Your task to perform on an android device: Open wifi settings Image 0: 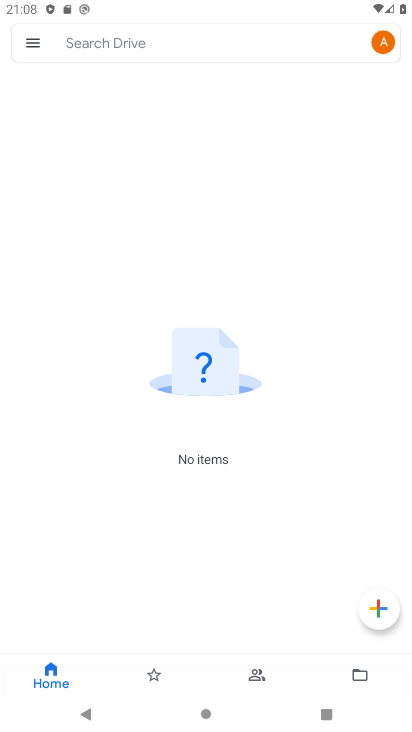
Step 0: press back button
Your task to perform on an android device: Open wifi settings Image 1: 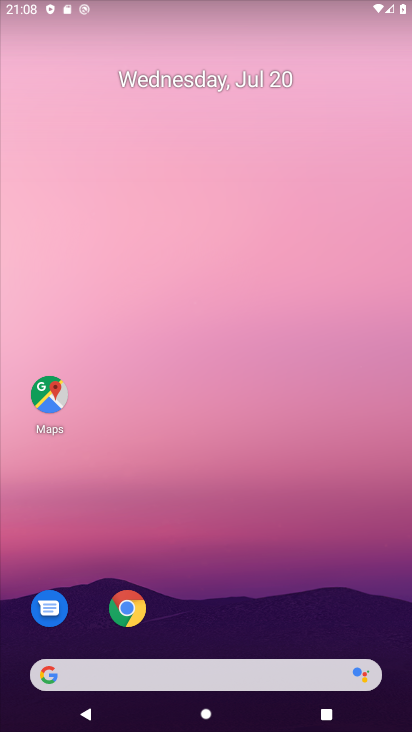
Step 1: drag from (268, 705) to (204, 104)
Your task to perform on an android device: Open wifi settings Image 2: 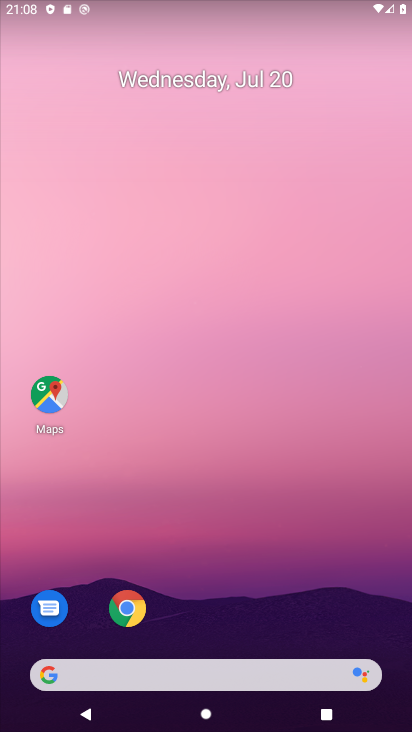
Step 2: drag from (218, 578) to (225, 150)
Your task to perform on an android device: Open wifi settings Image 3: 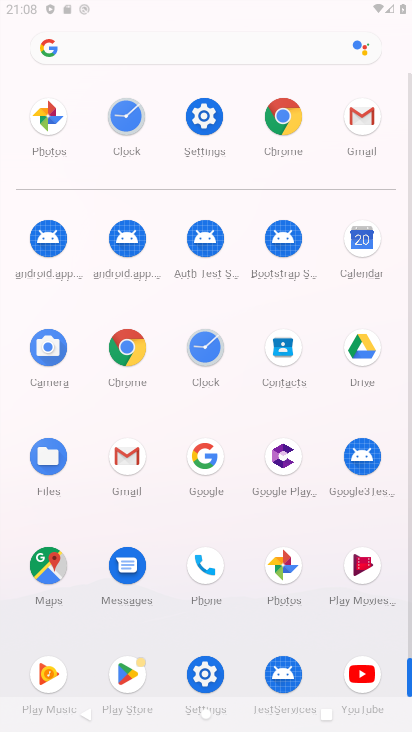
Step 3: drag from (267, 507) to (306, 109)
Your task to perform on an android device: Open wifi settings Image 4: 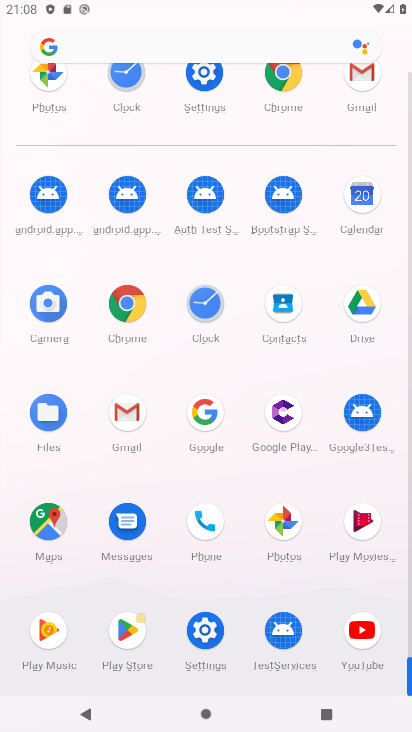
Step 4: click (199, 80)
Your task to perform on an android device: Open wifi settings Image 5: 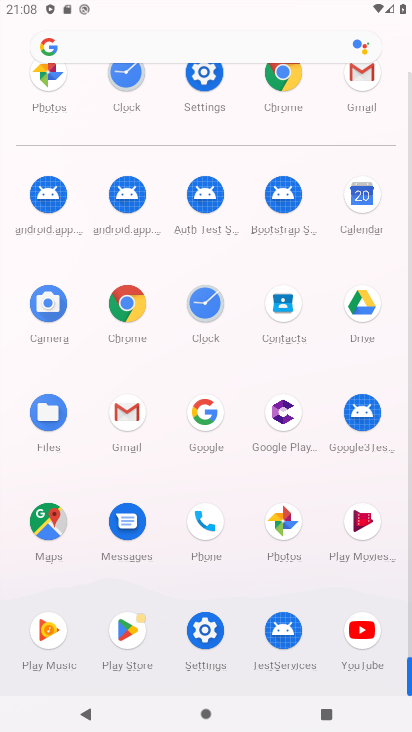
Step 5: click (199, 80)
Your task to perform on an android device: Open wifi settings Image 6: 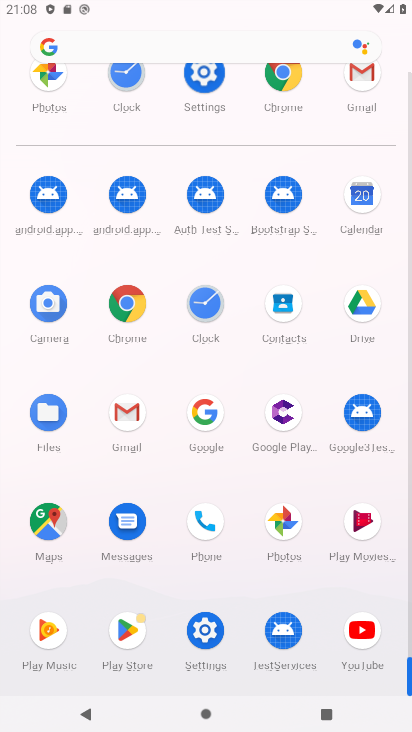
Step 6: click (209, 85)
Your task to perform on an android device: Open wifi settings Image 7: 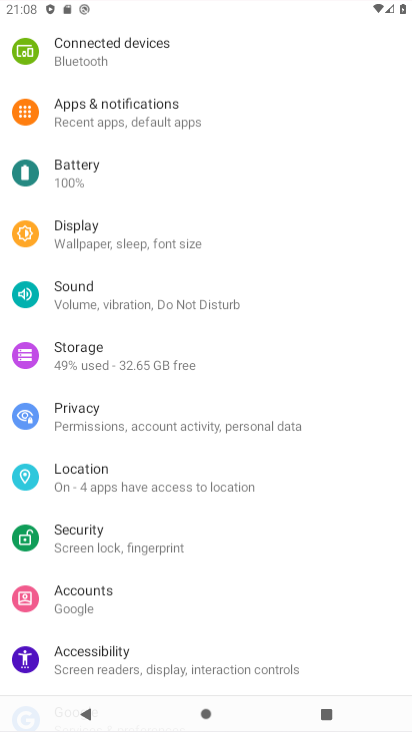
Step 7: click (213, 88)
Your task to perform on an android device: Open wifi settings Image 8: 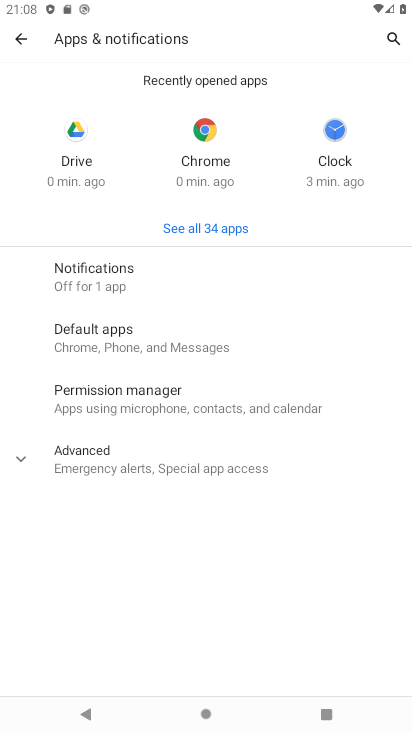
Step 8: click (18, 31)
Your task to perform on an android device: Open wifi settings Image 9: 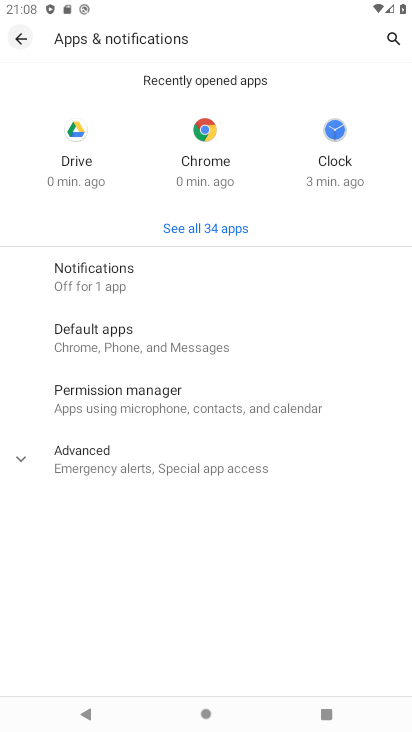
Step 9: click (20, 32)
Your task to perform on an android device: Open wifi settings Image 10: 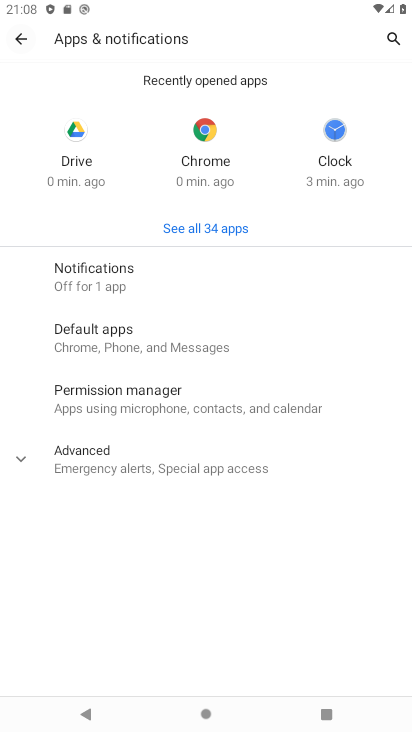
Step 10: click (23, 33)
Your task to perform on an android device: Open wifi settings Image 11: 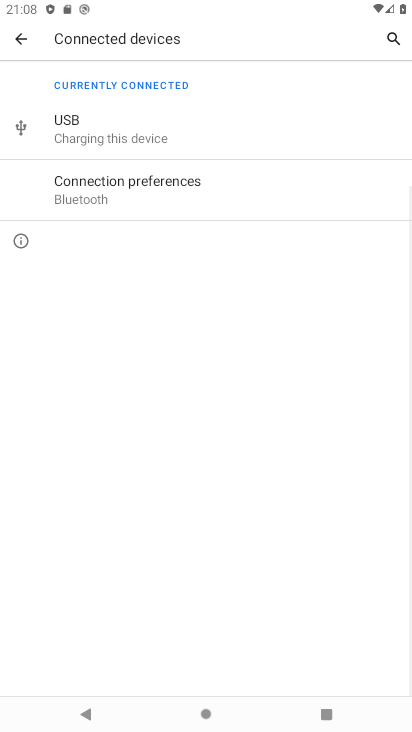
Step 11: click (16, 42)
Your task to perform on an android device: Open wifi settings Image 12: 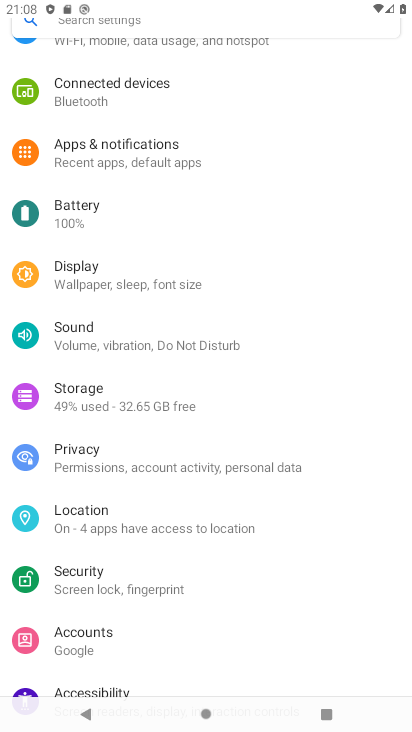
Step 12: drag from (130, 67) to (114, 305)
Your task to perform on an android device: Open wifi settings Image 13: 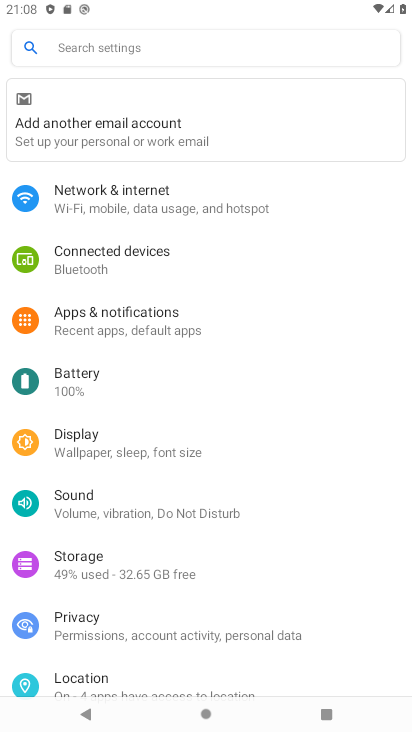
Step 13: click (115, 196)
Your task to perform on an android device: Open wifi settings Image 14: 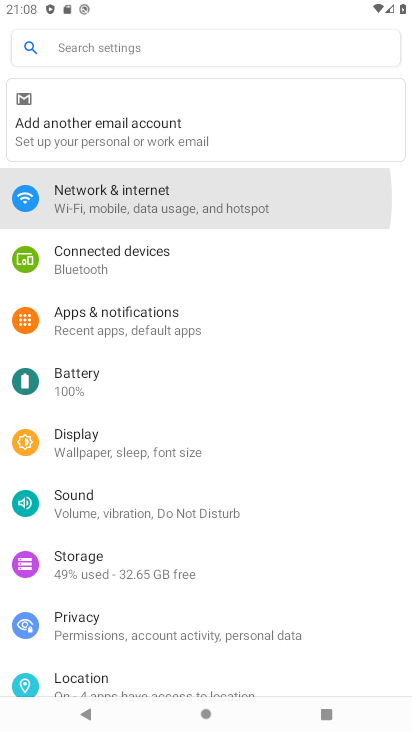
Step 14: click (114, 198)
Your task to perform on an android device: Open wifi settings Image 15: 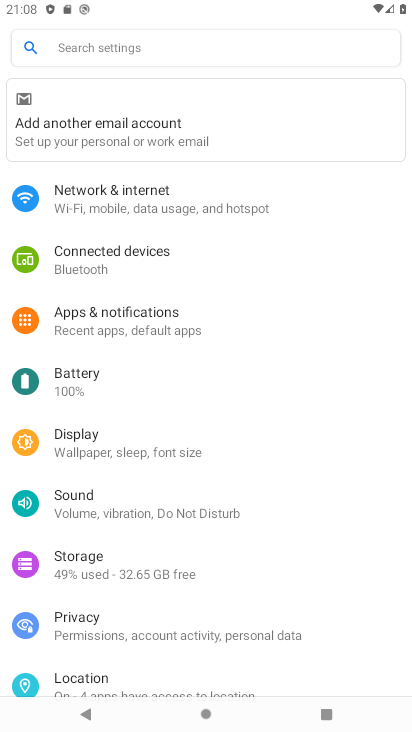
Step 15: click (120, 203)
Your task to perform on an android device: Open wifi settings Image 16: 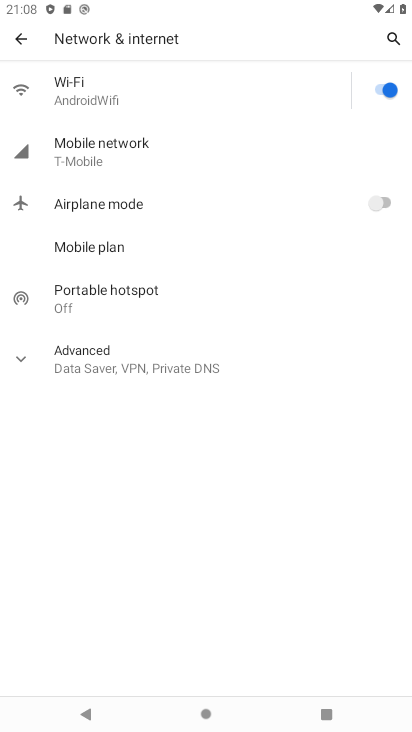
Step 16: task complete